Your task to perform on an android device: turn off wifi Image 0: 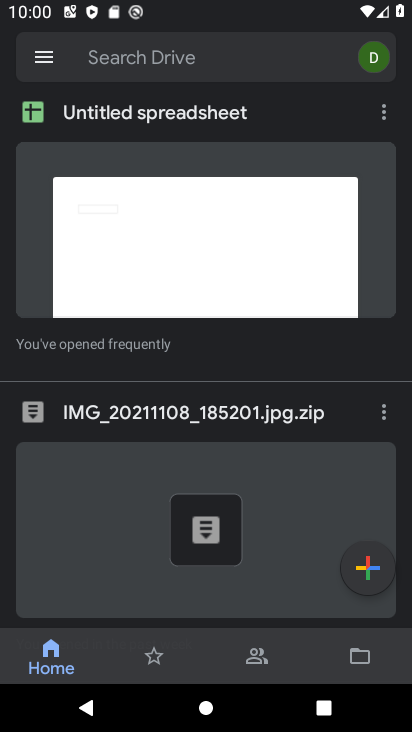
Step 0: press home button
Your task to perform on an android device: turn off wifi Image 1: 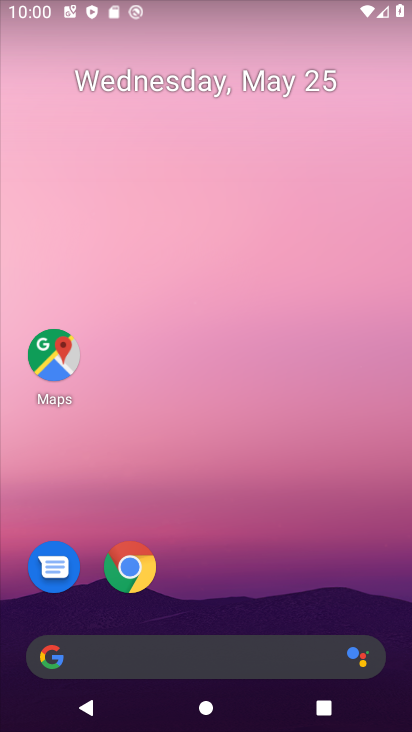
Step 1: drag from (291, 601) to (305, 114)
Your task to perform on an android device: turn off wifi Image 2: 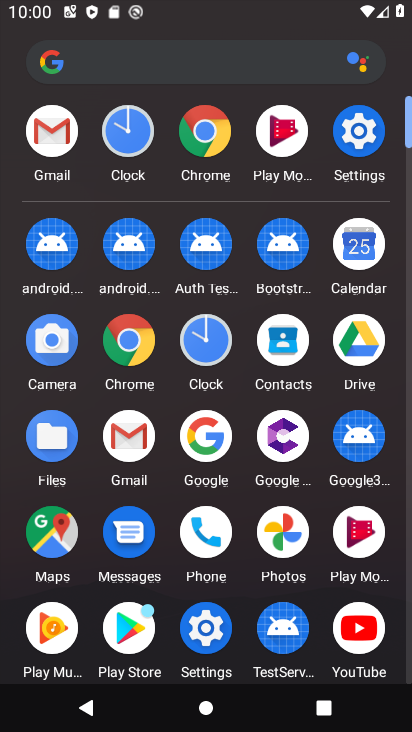
Step 2: click (342, 149)
Your task to perform on an android device: turn off wifi Image 3: 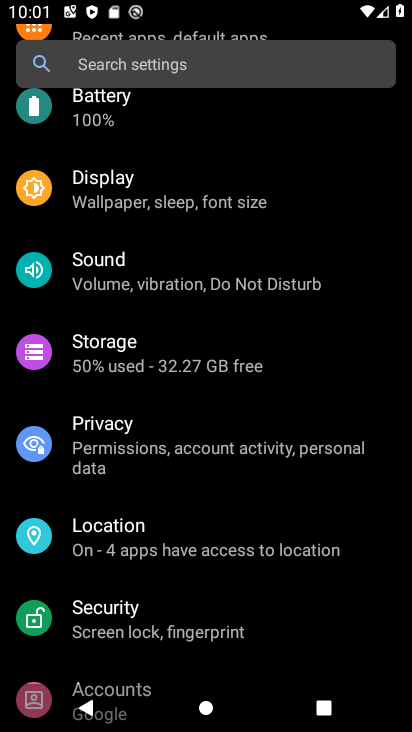
Step 3: task complete